Your task to perform on an android device: turn notification dots on Image 0: 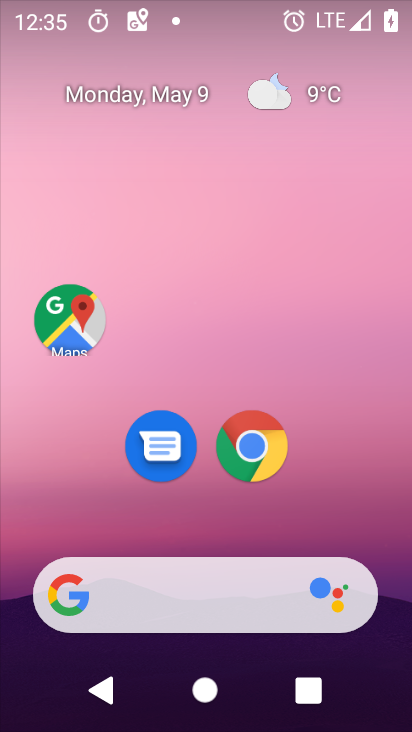
Step 0: drag from (392, 552) to (400, 8)
Your task to perform on an android device: turn notification dots on Image 1: 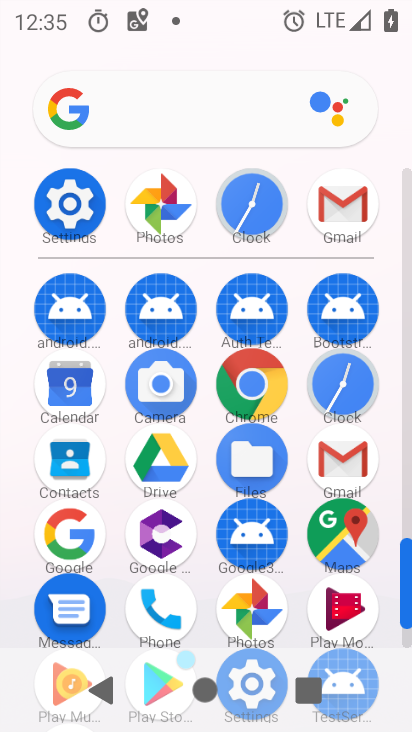
Step 1: click (70, 208)
Your task to perform on an android device: turn notification dots on Image 2: 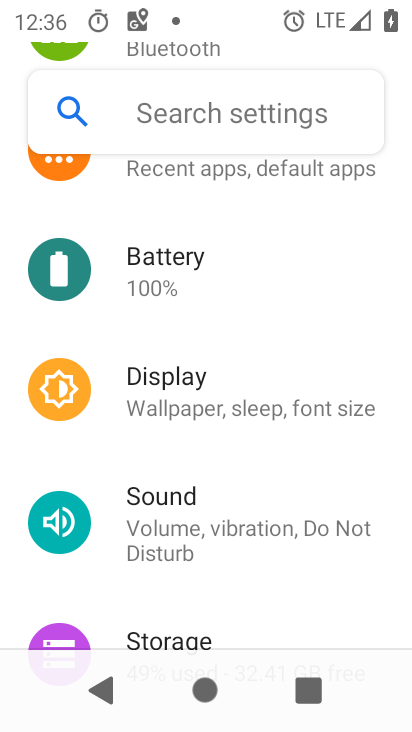
Step 2: drag from (353, 318) to (355, 488)
Your task to perform on an android device: turn notification dots on Image 3: 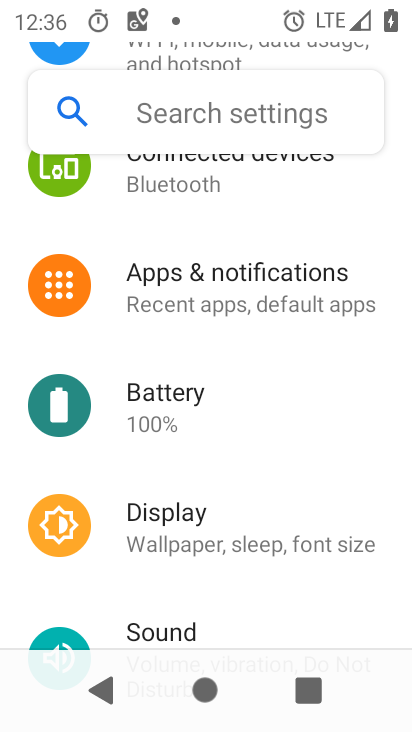
Step 3: click (248, 297)
Your task to perform on an android device: turn notification dots on Image 4: 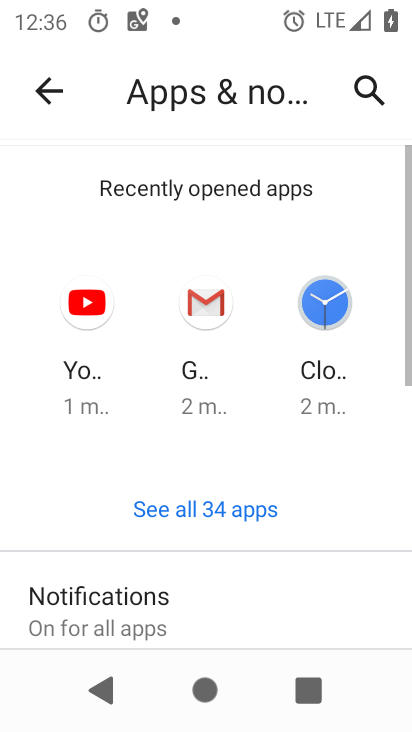
Step 4: drag from (244, 557) to (239, 221)
Your task to perform on an android device: turn notification dots on Image 5: 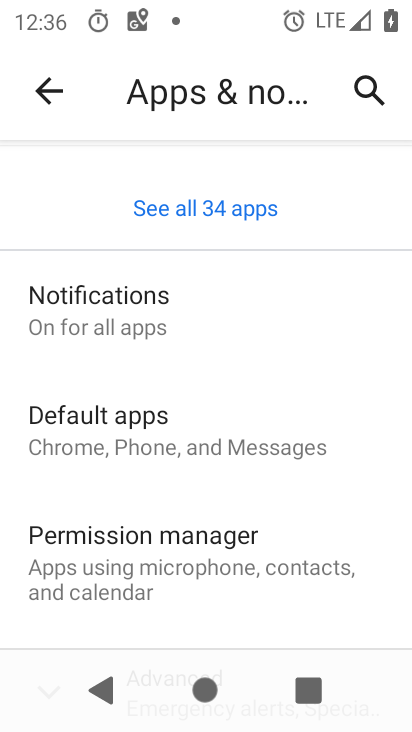
Step 5: click (113, 315)
Your task to perform on an android device: turn notification dots on Image 6: 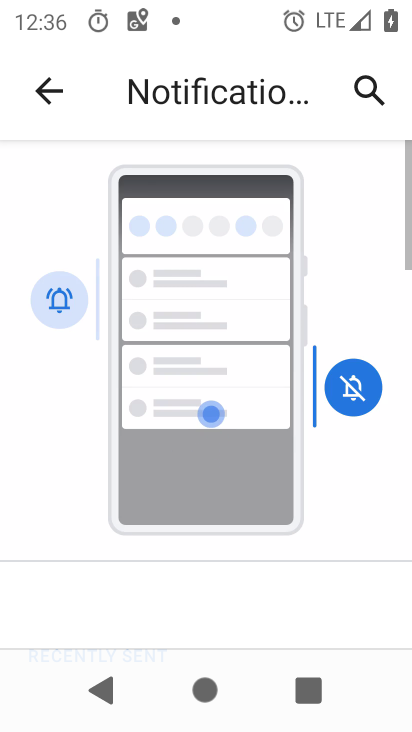
Step 6: drag from (297, 539) to (289, 103)
Your task to perform on an android device: turn notification dots on Image 7: 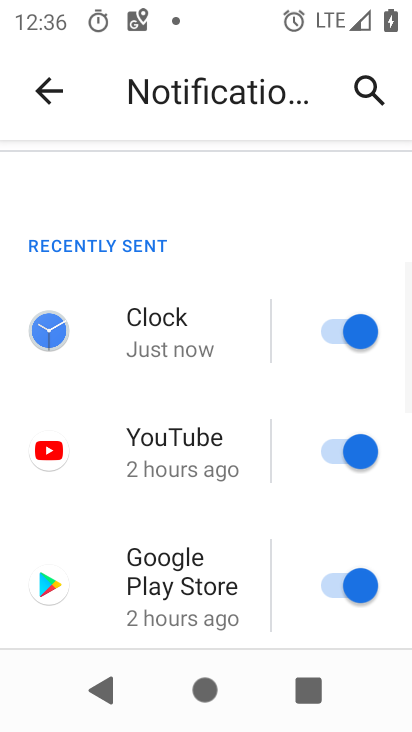
Step 7: drag from (242, 564) to (238, 224)
Your task to perform on an android device: turn notification dots on Image 8: 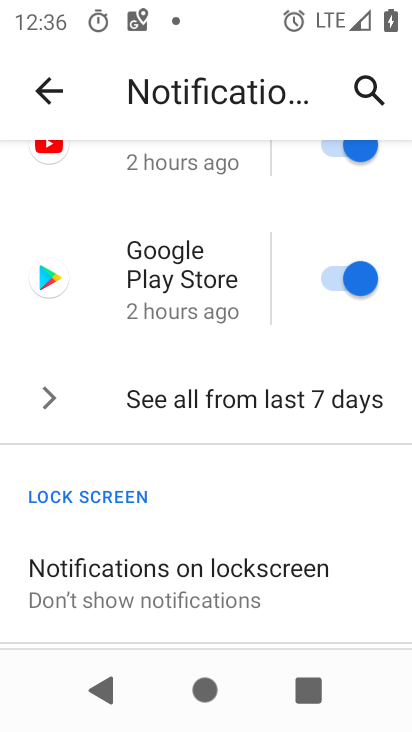
Step 8: drag from (211, 534) to (219, 284)
Your task to perform on an android device: turn notification dots on Image 9: 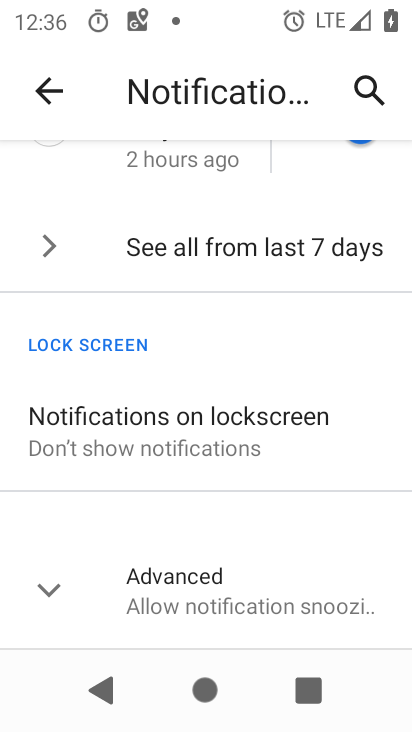
Step 9: click (42, 599)
Your task to perform on an android device: turn notification dots on Image 10: 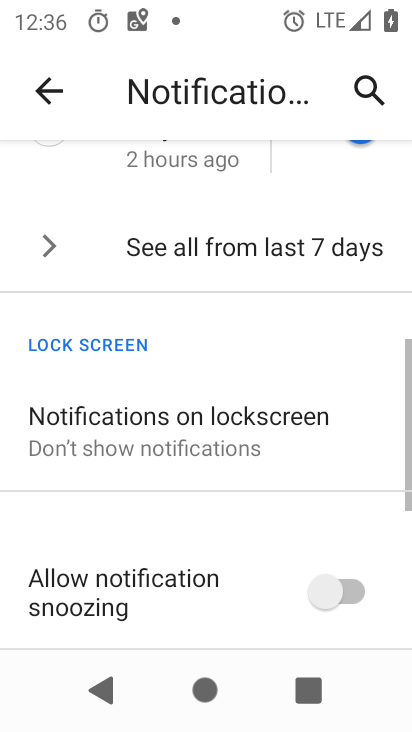
Step 10: task complete